Your task to perform on an android device: check data usage Image 0: 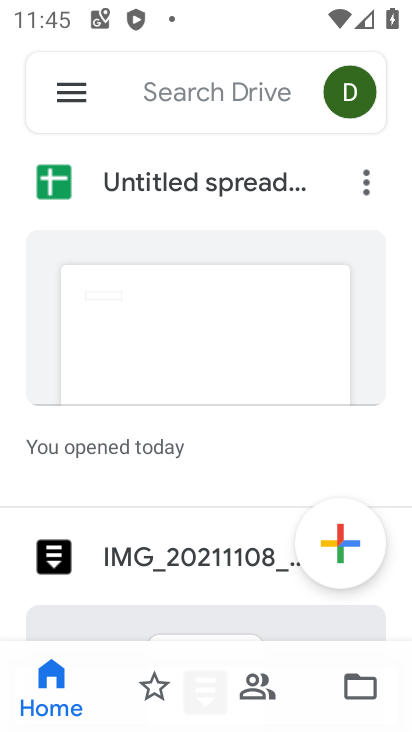
Step 0: press home button
Your task to perform on an android device: check data usage Image 1: 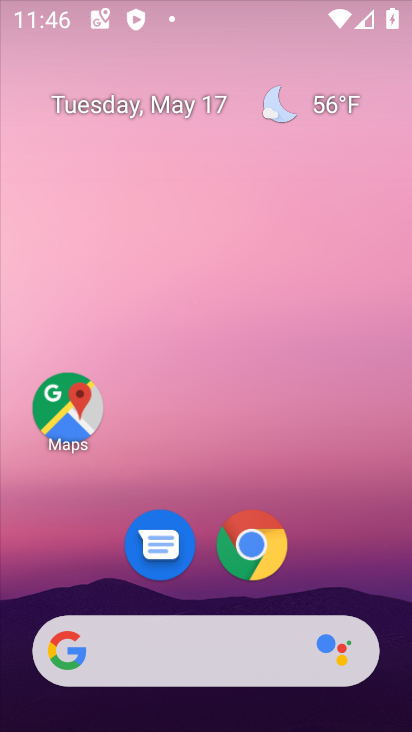
Step 1: drag from (271, 633) to (351, 12)
Your task to perform on an android device: check data usage Image 2: 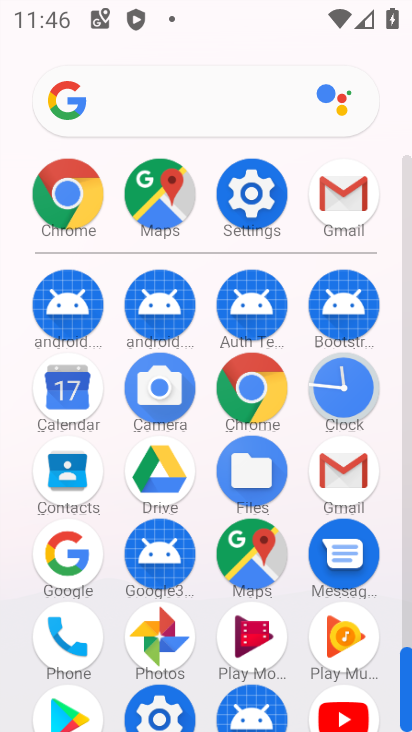
Step 2: click (274, 215)
Your task to perform on an android device: check data usage Image 3: 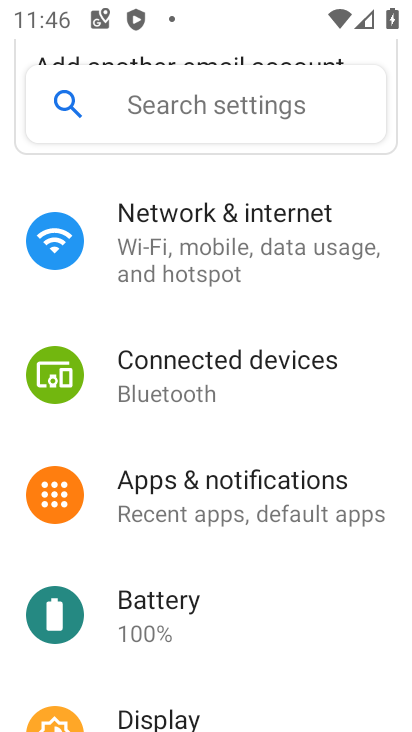
Step 3: drag from (261, 428) to (244, 575)
Your task to perform on an android device: check data usage Image 4: 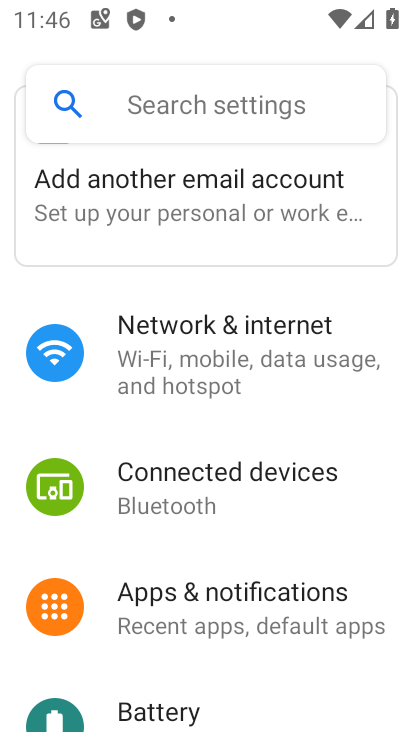
Step 4: click (249, 516)
Your task to perform on an android device: check data usage Image 5: 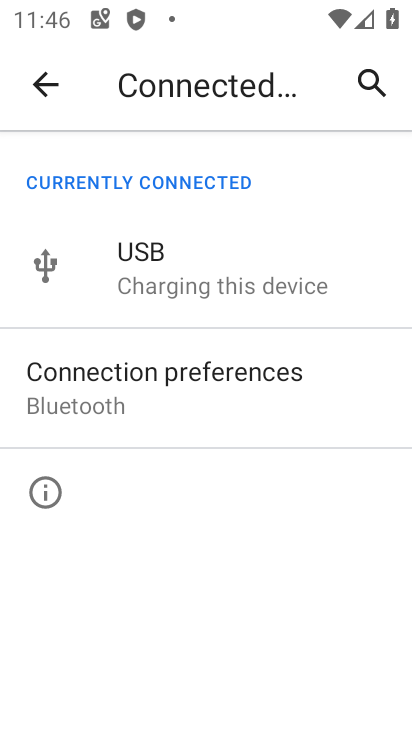
Step 5: click (49, 91)
Your task to perform on an android device: check data usage Image 6: 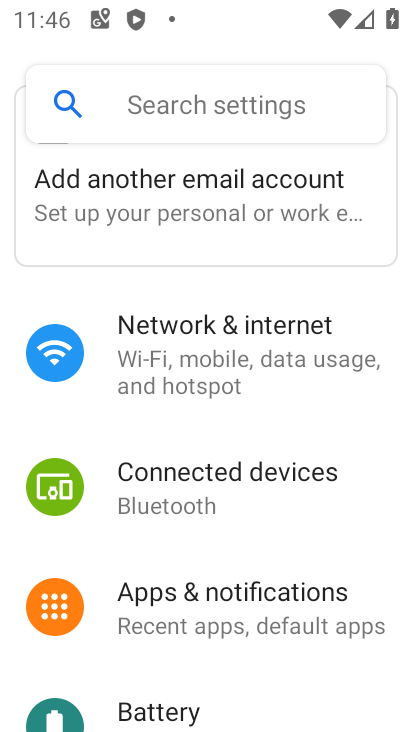
Step 6: click (200, 315)
Your task to perform on an android device: check data usage Image 7: 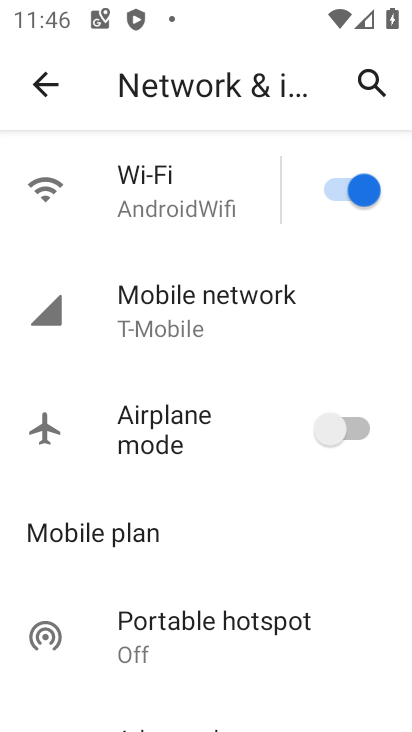
Step 7: click (199, 315)
Your task to perform on an android device: check data usage Image 8: 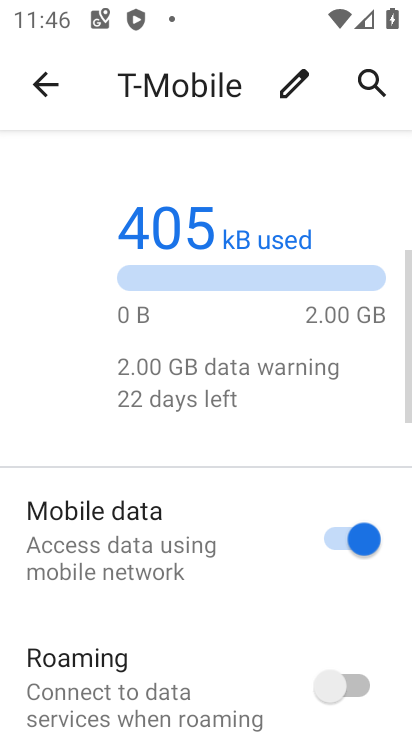
Step 8: drag from (204, 607) to (198, 109)
Your task to perform on an android device: check data usage Image 9: 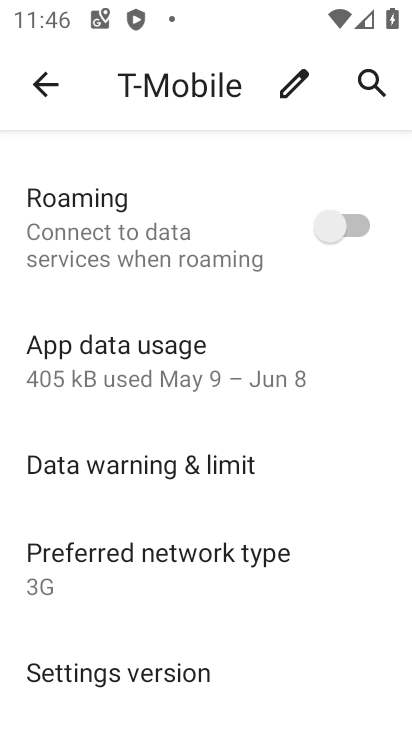
Step 9: click (131, 355)
Your task to perform on an android device: check data usage Image 10: 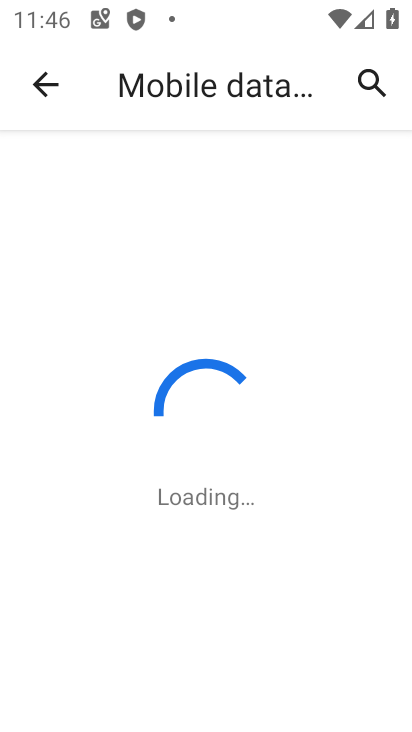
Step 10: task complete